Your task to perform on an android device: toggle improve location accuracy Image 0: 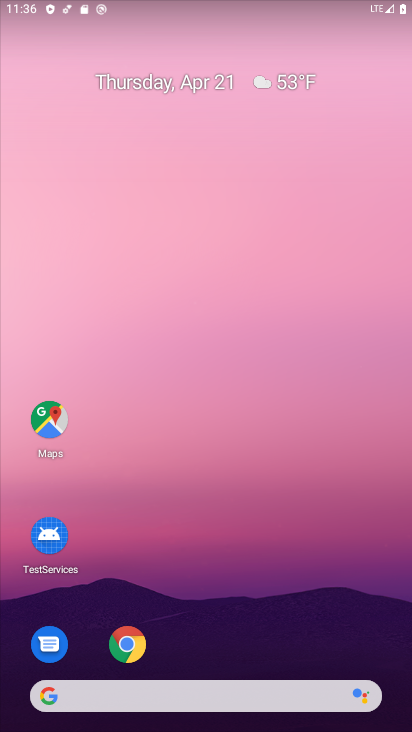
Step 0: drag from (317, 610) to (320, 180)
Your task to perform on an android device: toggle improve location accuracy Image 1: 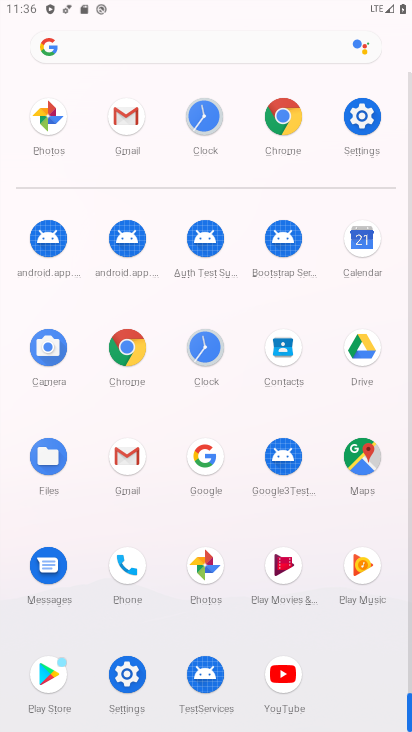
Step 1: click (137, 672)
Your task to perform on an android device: toggle improve location accuracy Image 2: 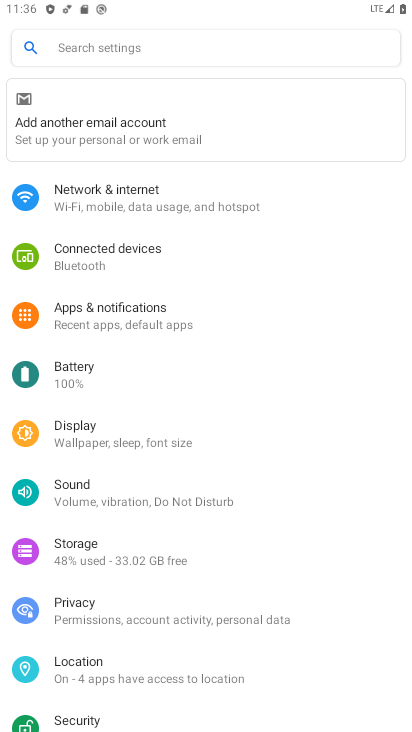
Step 2: drag from (155, 602) to (233, 200)
Your task to perform on an android device: toggle improve location accuracy Image 3: 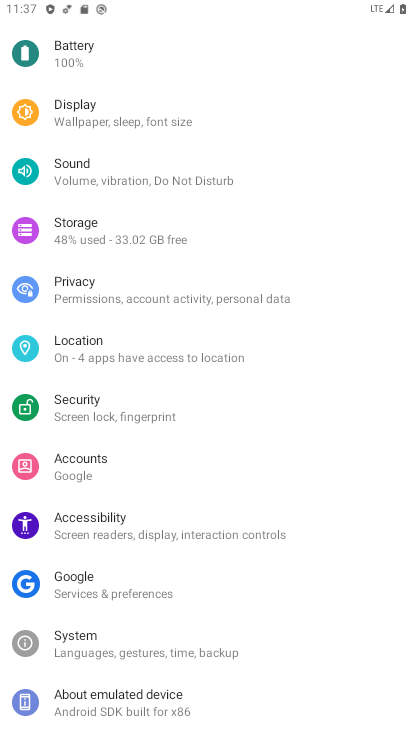
Step 3: drag from (204, 611) to (238, 724)
Your task to perform on an android device: toggle improve location accuracy Image 4: 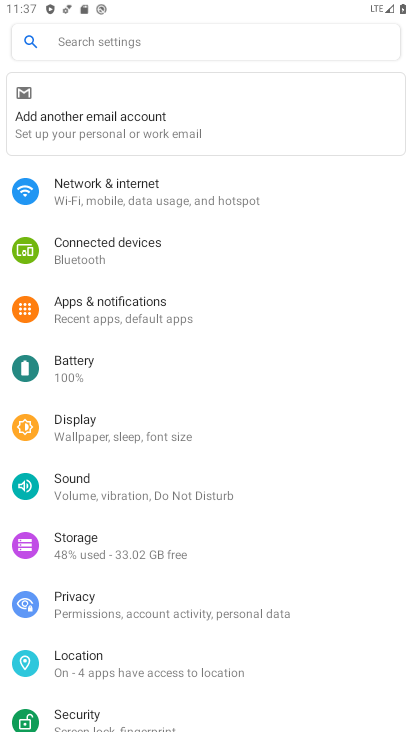
Step 4: drag from (128, 570) to (202, 285)
Your task to perform on an android device: toggle improve location accuracy Image 5: 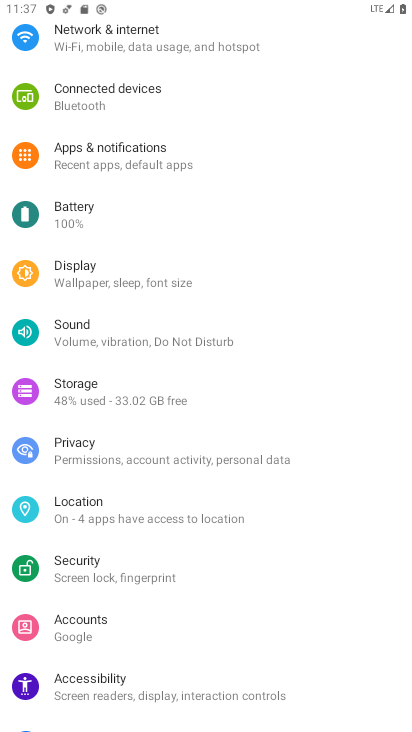
Step 5: click (92, 515)
Your task to perform on an android device: toggle improve location accuracy Image 6: 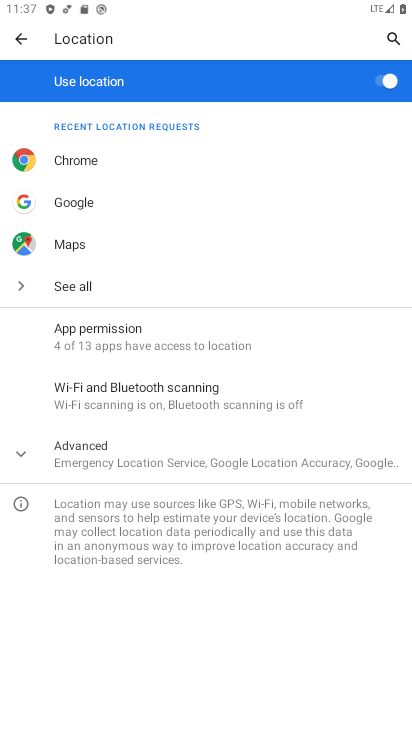
Step 6: click (148, 347)
Your task to perform on an android device: toggle improve location accuracy Image 7: 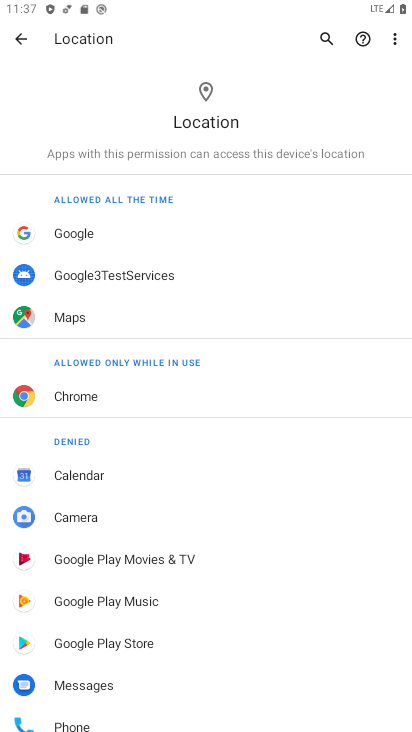
Step 7: click (22, 31)
Your task to perform on an android device: toggle improve location accuracy Image 8: 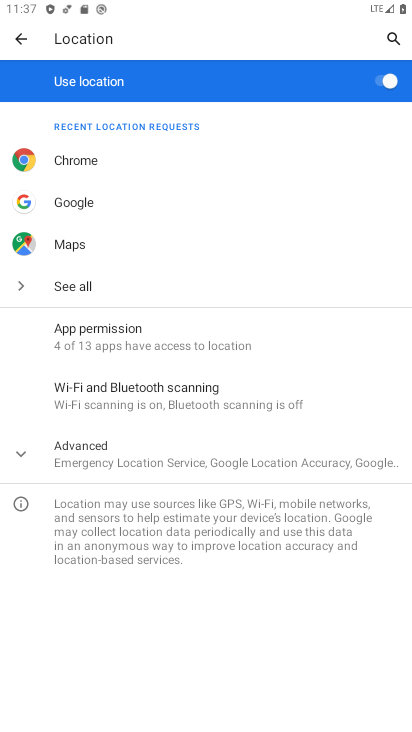
Step 8: click (152, 456)
Your task to perform on an android device: toggle improve location accuracy Image 9: 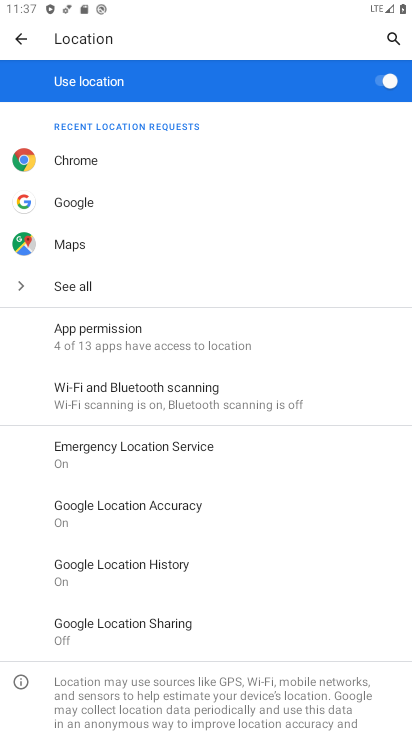
Step 9: click (131, 507)
Your task to perform on an android device: toggle improve location accuracy Image 10: 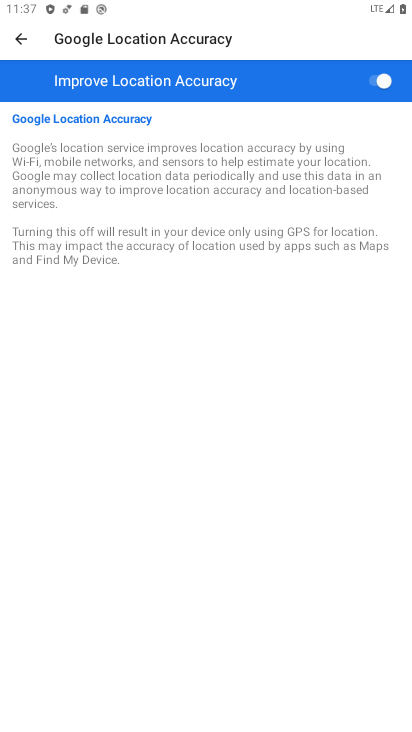
Step 10: click (380, 64)
Your task to perform on an android device: toggle improve location accuracy Image 11: 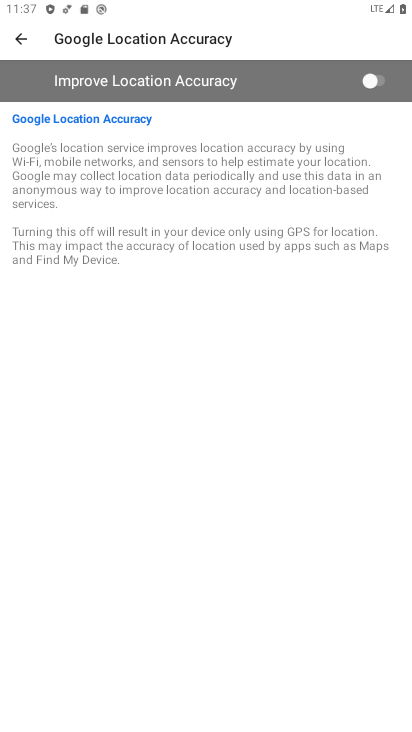
Step 11: click (381, 75)
Your task to perform on an android device: toggle improve location accuracy Image 12: 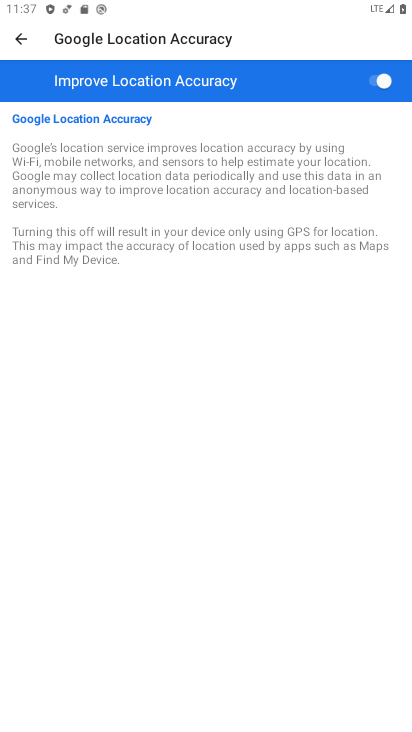
Step 12: click (378, 83)
Your task to perform on an android device: toggle improve location accuracy Image 13: 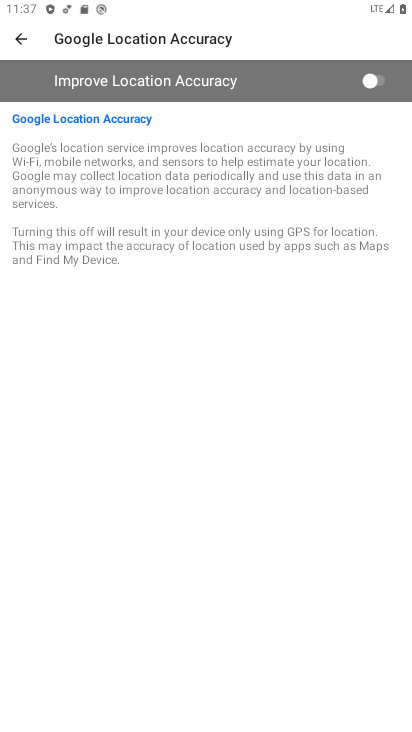
Step 13: task complete